Your task to perform on an android device: Do I have any events today? Image 0: 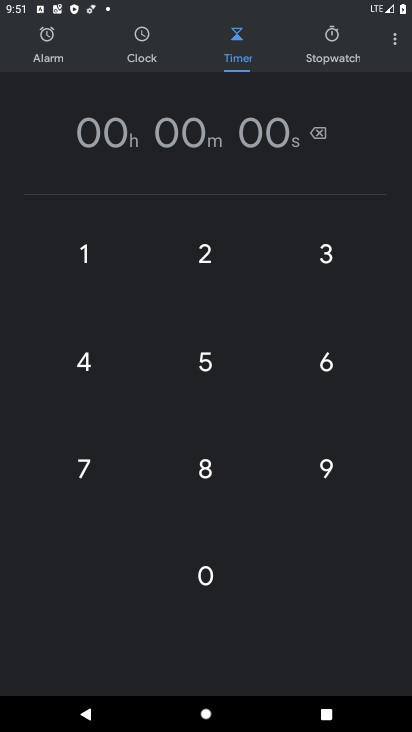
Step 0: press home button
Your task to perform on an android device: Do I have any events today? Image 1: 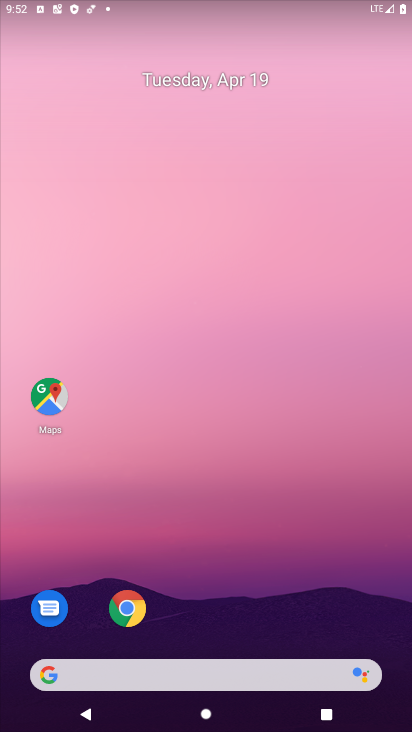
Step 1: drag from (308, 621) to (298, 83)
Your task to perform on an android device: Do I have any events today? Image 2: 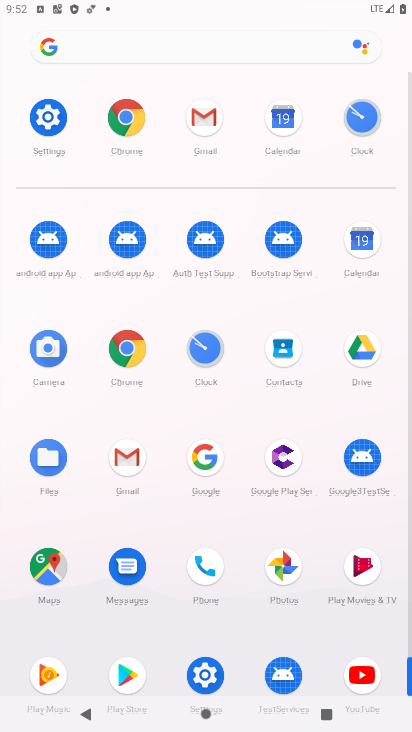
Step 2: click (357, 238)
Your task to perform on an android device: Do I have any events today? Image 3: 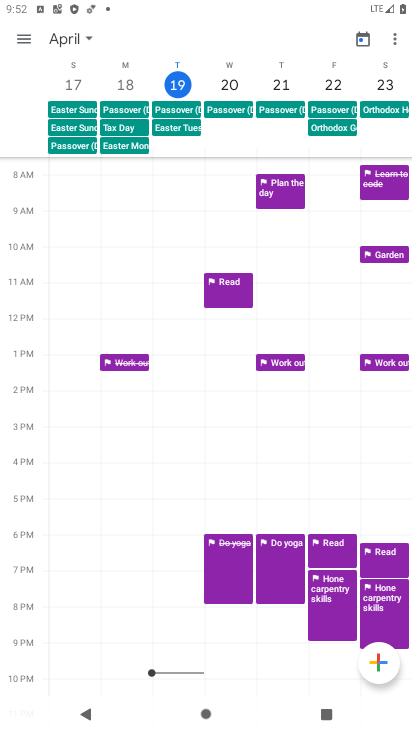
Step 3: click (24, 35)
Your task to perform on an android device: Do I have any events today? Image 4: 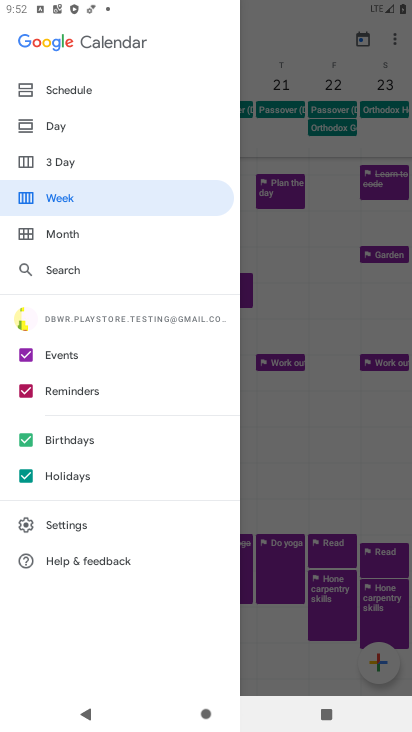
Step 4: click (55, 119)
Your task to perform on an android device: Do I have any events today? Image 5: 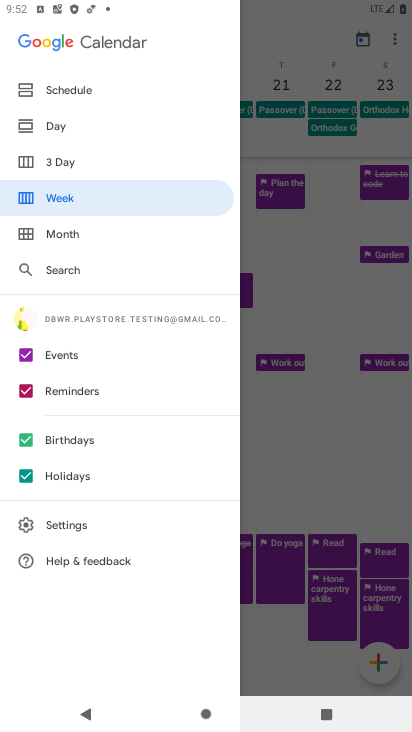
Step 5: click (56, 127)
Your task to perform on an android device: Do I have any events today? Image 6: 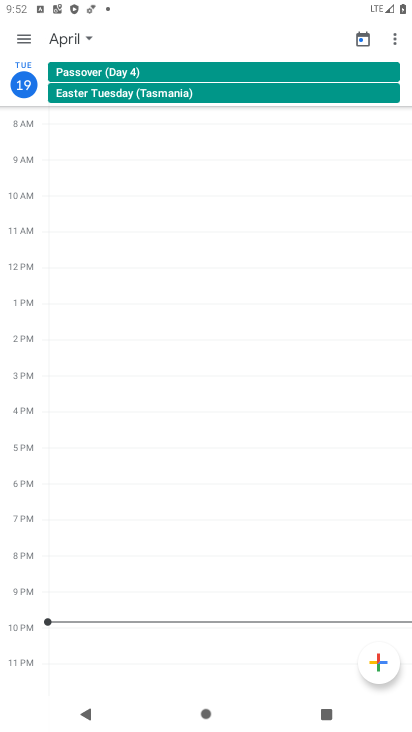
Step 6: task complete